Your task to perform on an android device: turn on translation in the chrome app Image 0: 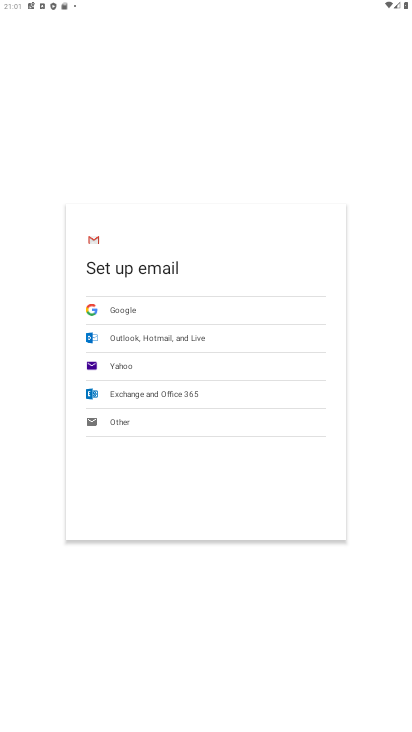
Step 0: press home button
Your task to perform on an android device: turn on translation in the chrome app Image 1: 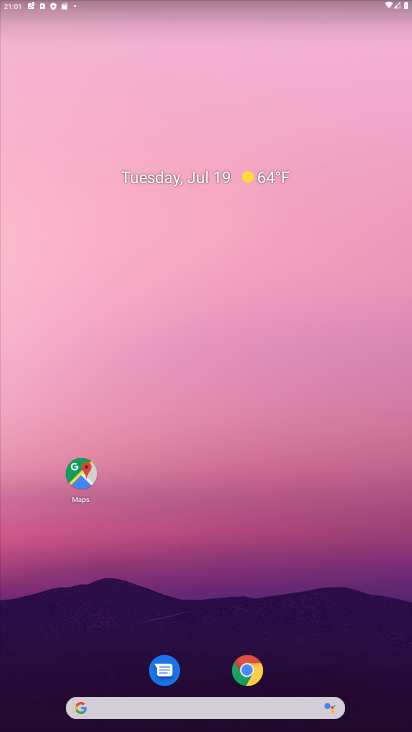
Step 1: click (245, 671)
Your task to perform on an android device: turn on translation in the chrome app Image 2: 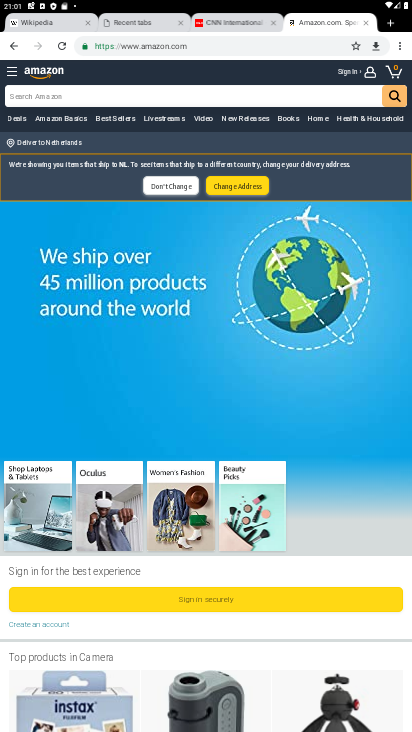
Step 2: click (400, 49)
Your task to perform on an android device: turn on translation in the chrome app Image 3: 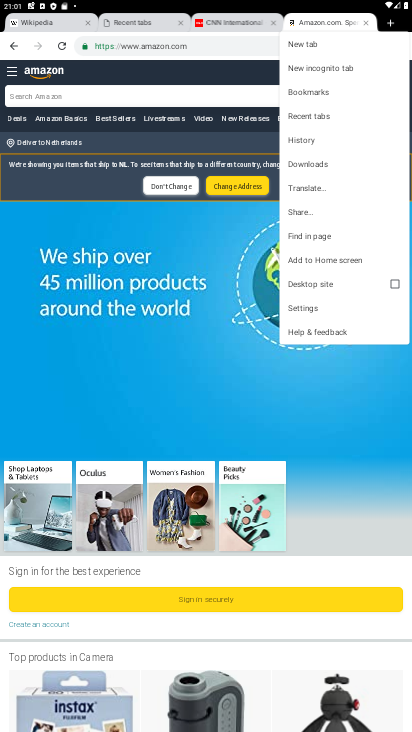
Step 3: click (310, 312)
Your task to perform on an android device: turn on translation in the chrome app Image 4: 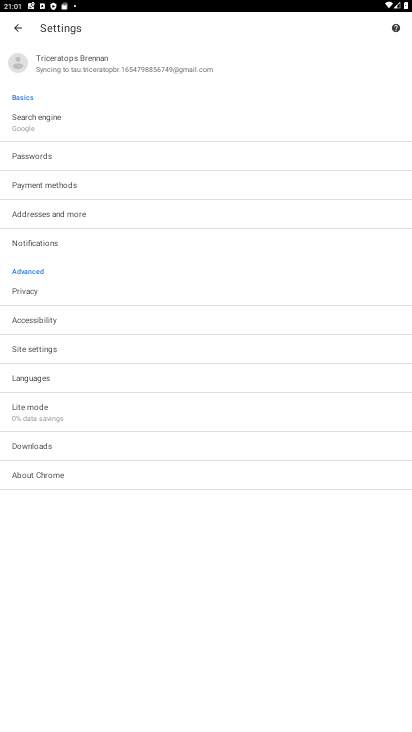
Step 4: click (52, 374)
Your task to perform on an android device: turn on translation in the chrome app Image 5: 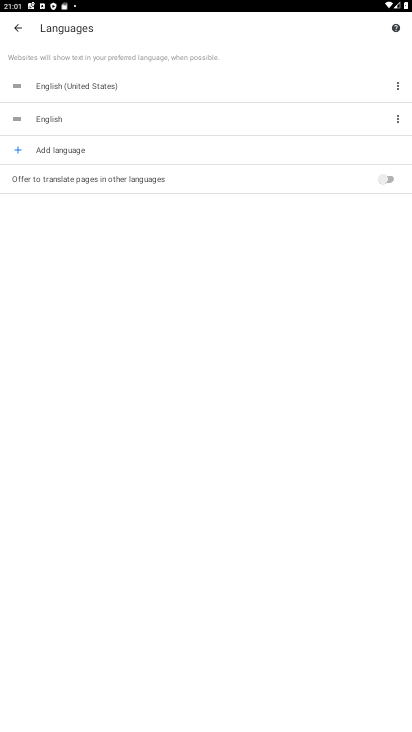
Step 5: click (383, 184)
Your task to perform on an android device: turn on translation in the chrome app Image 6: 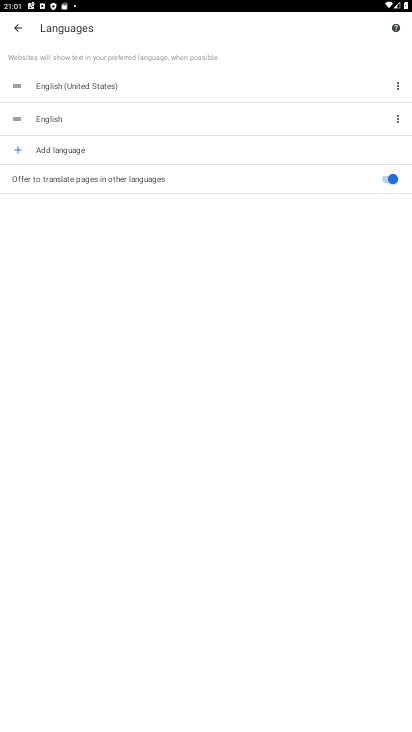
Step 6: task complete